Your task to perform on an android device: Open sound settings Image 0: 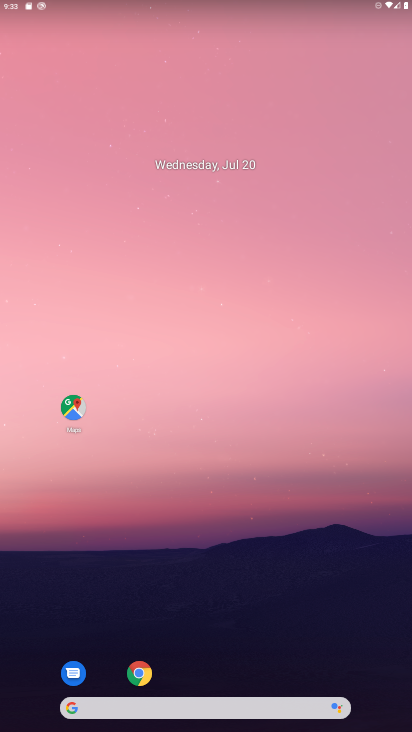
Step 0: drag from (251, 543) to (297, 158)
Your task to perform on an android device: Open sound settings Image 1: 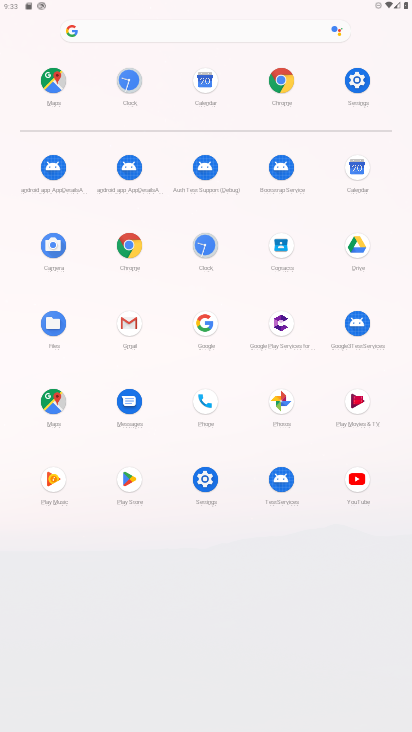
Step 1: click (201, 478)
Your task to perform on an android device: Open sound settings Image 2: 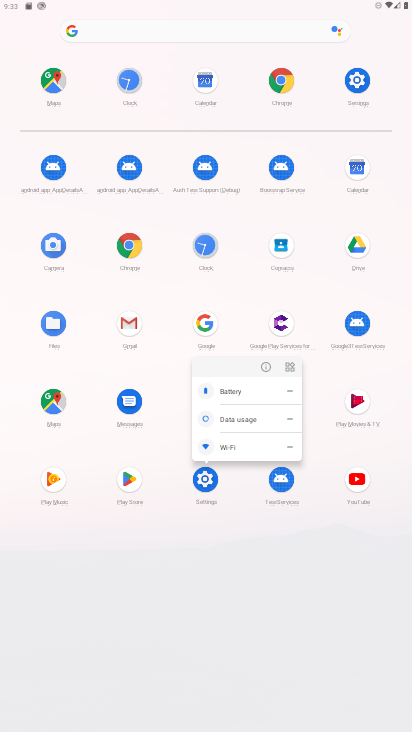
Step 2: click (263, 365)
Your task to perform on an android device: Open sound settings Image 3: 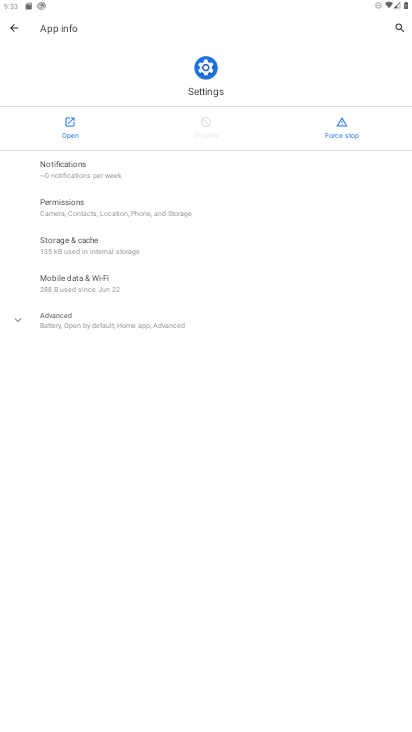
Step 3: click (64, 117)
Your task to perform on an android device: Open sound settings Image 4: 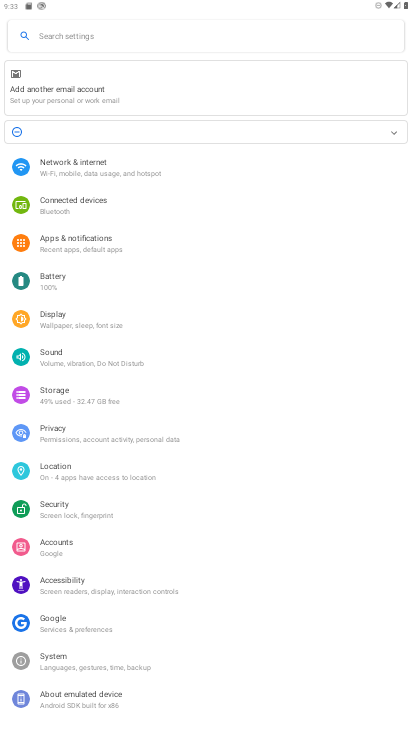
Step 4: click (59, 351)
Your task to perform on an android device: Open sound settings Image 5: 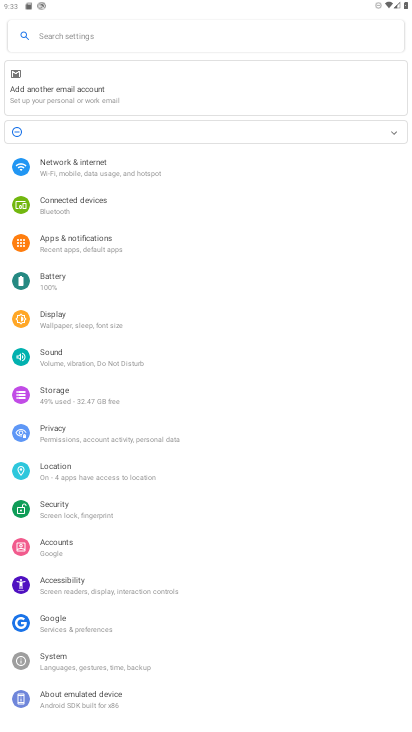
Step 5: click (59, 351)
Your task to perform on an android device: Open sound settings Image 6: 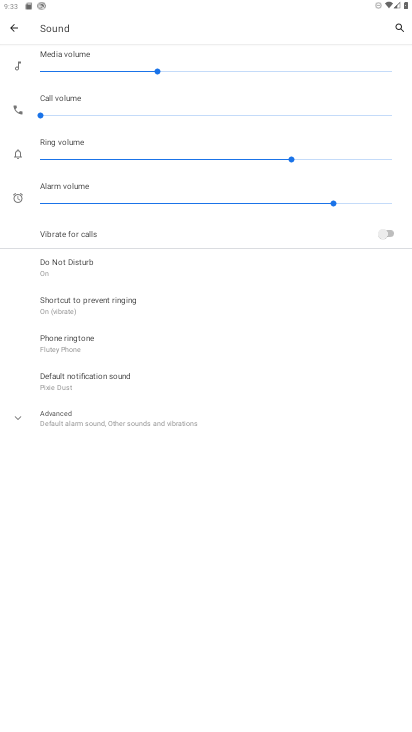
Step 6: task complete